Your task to perform on an android device: Go to ESPN.com Image 0: 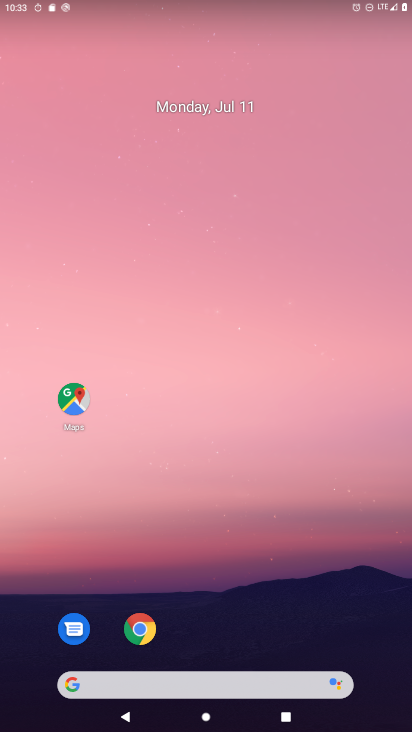
Step 0: click (152, 641)
Your task to perform on an android device: Go to ESPN.com Image 1: 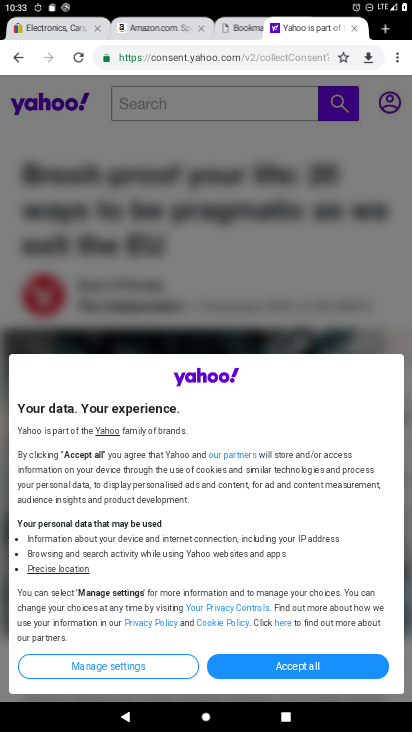
Step 1: click (384, 32)
Your task to perform on an android device: Go to ESPN.com Image 2: 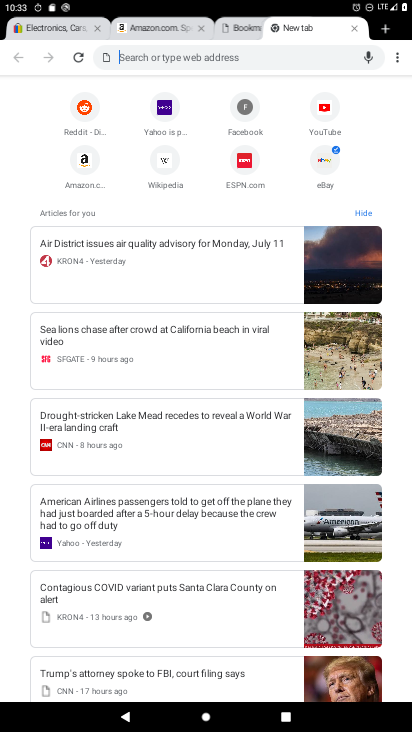
Step 2: click (240, 163)
Your task to perform on an android device: Go to ESPN.com Image 3: 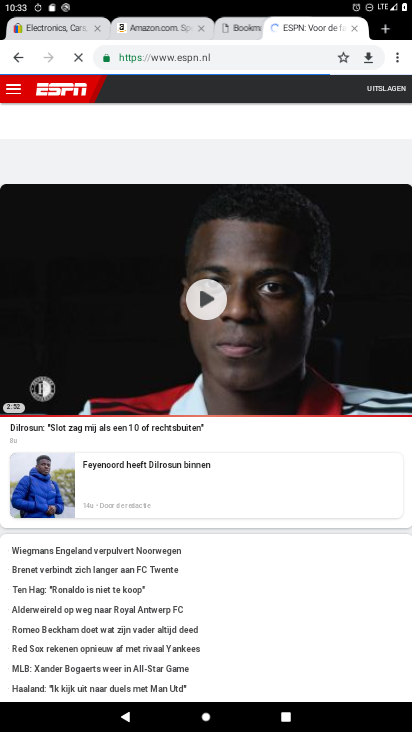
Step 3: task complete